Your task to perform on an android device: check google app version Image 0: 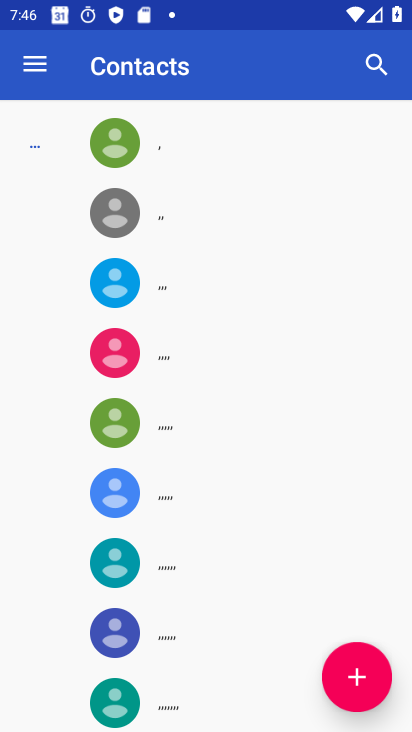
Step 0: press home button
Your task to perform on an android device: check google app version Image 1: 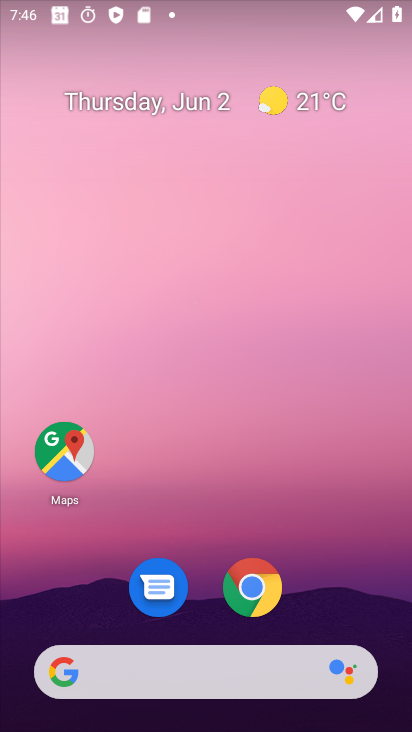
Step 1: drag from (331, 600) to (313, 7)
Your task to perform on an android device: check google app version Image 2: 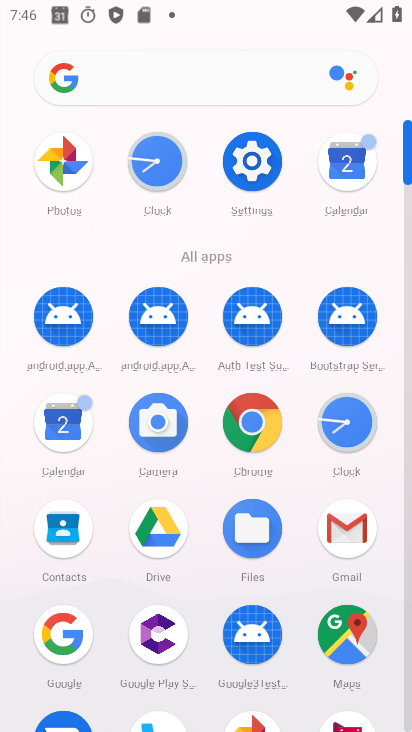
Step 2: click (60, 628)
Your task to perform on an android device: check google app version Image 3: 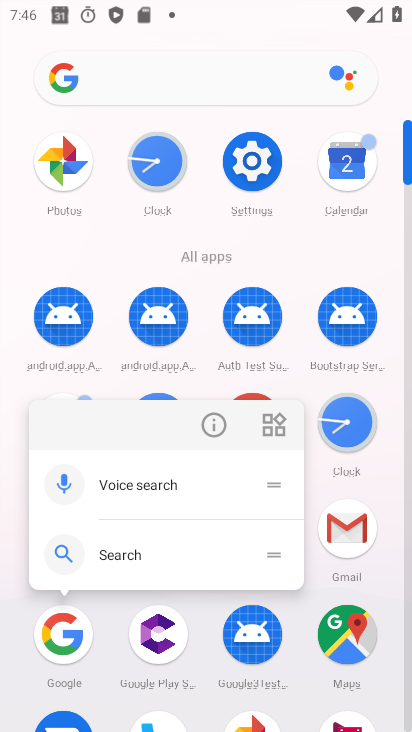
Step 3: click (214, 425)
Your task to perform on an android device: check google app version Image 4: 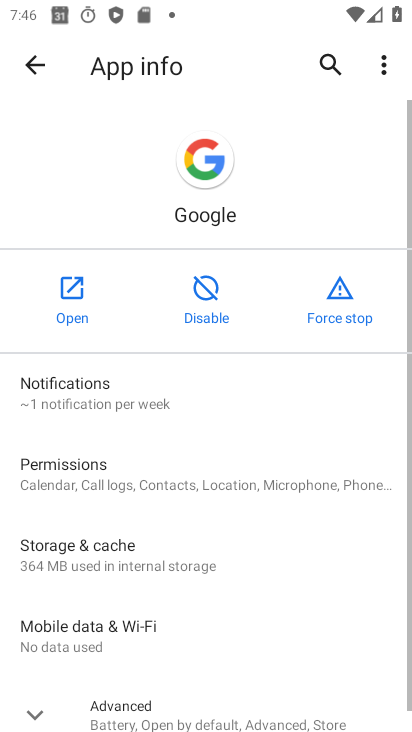
Step 4: drag from (234, 630) to (249, 244)
Your task to perform on an android device: check google app version Image 5: 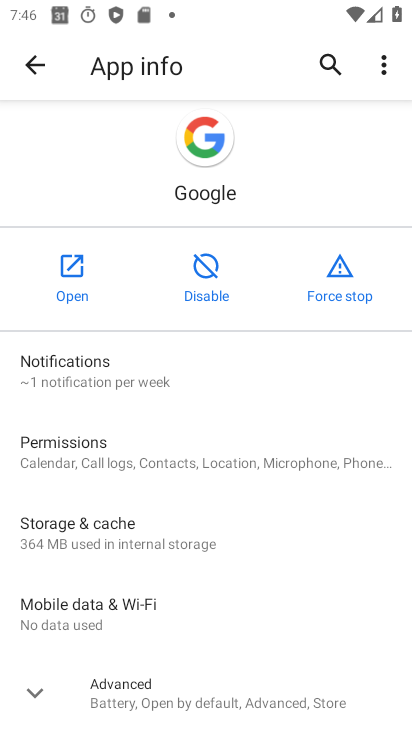
Step 5: click (35, 701)
Your task to perform on an android device: check google app version Image 6: 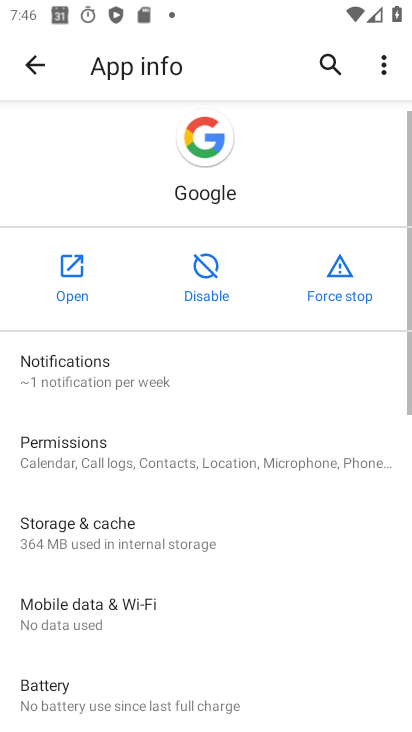
Step 6: drag from (159, 672) to (173, 194)
Your task to perform on an android device: check google app version Image 7: 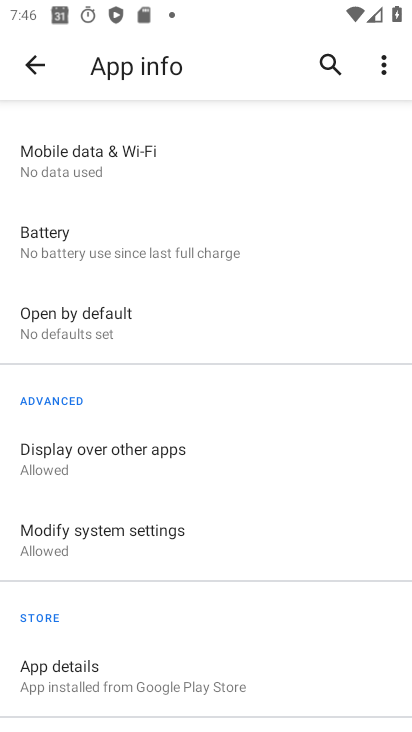
Step 7: drag from (158, 635) to (141, 232)
Your task to perform on an android device: check google app version Image 8: 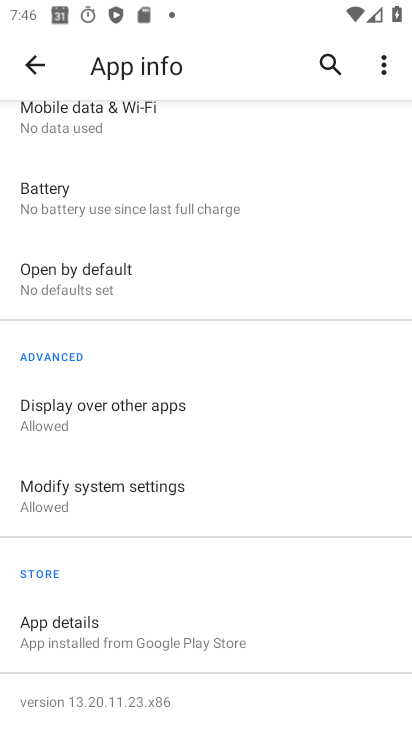
Step 8: click (119, 701)
Your task to perform on an android device: check google app version Image 9: 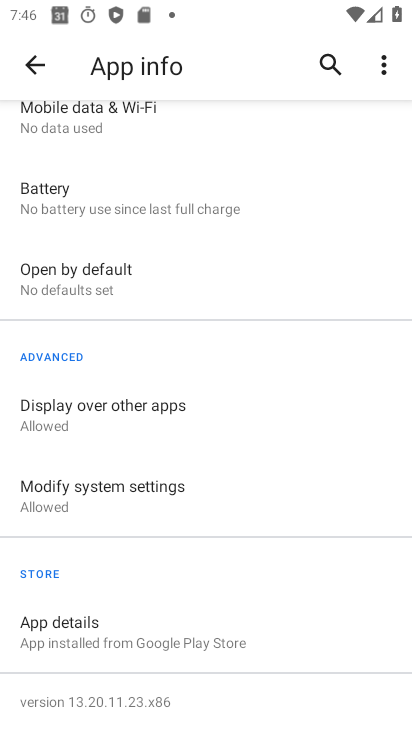
Step 9: task complete